Your task to perform on an android device: Go to Maps Image 0: 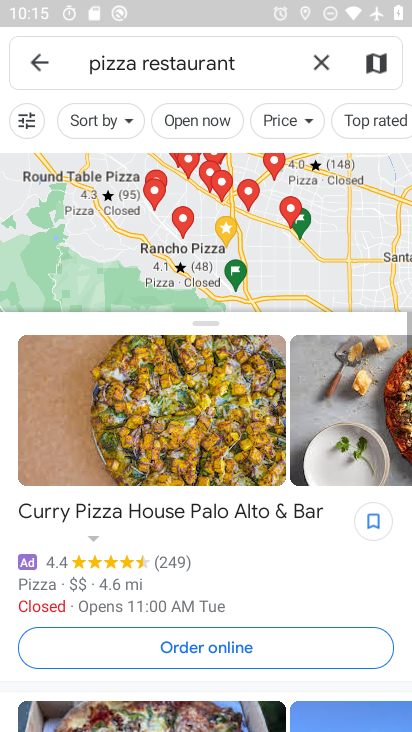
Step 0: press home button
Your task to perform on an android device: Go to Maps Image 1: 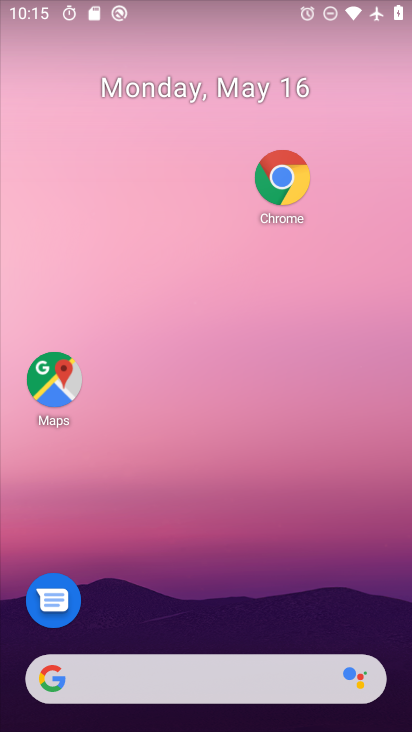
Step 1: click (70, 391)
Your task to perform on an android device: Go to Maps Image 2: 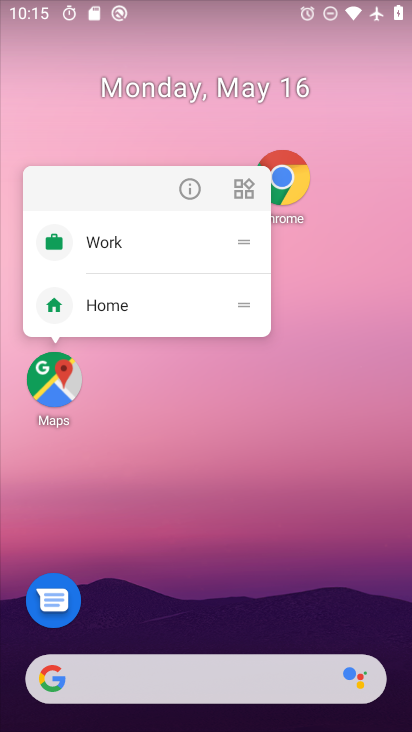
Step 2: click (45, 401)
Your task to perform on an android device: Go to Maps Image 3: 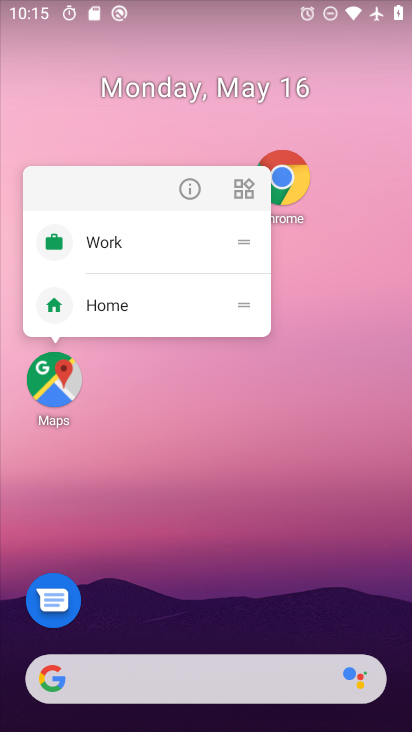
Step 3: click (58, 384)
Your task to perform on an android device: Go to Maps Image 4: 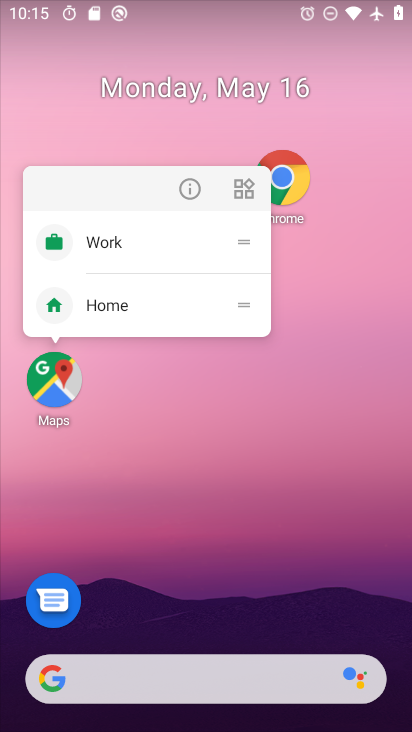
Step 4: click (58, 382)
Your task to perform on an android device: Go to Maps Image 5: 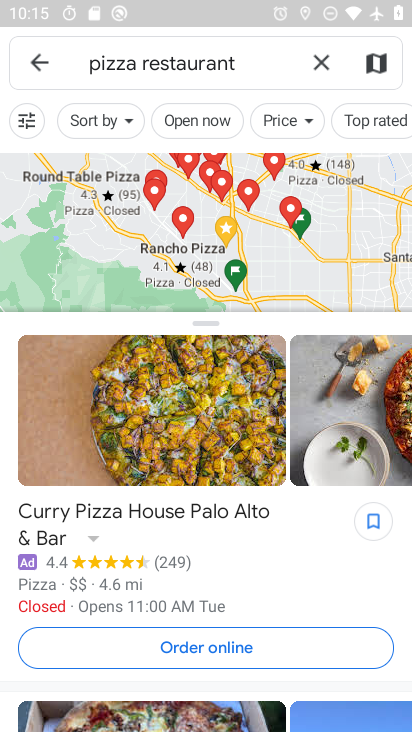
Step 5: task complete